Your task to perform on an android device: toggle pop-ups in chrome Image 0: 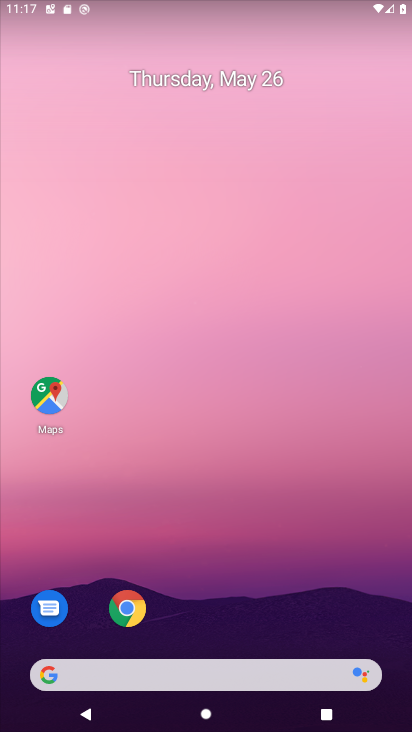
Step 0: click (119, 612)
Your task to perform on an android device: toggle pop-ups in chrome Image 1: 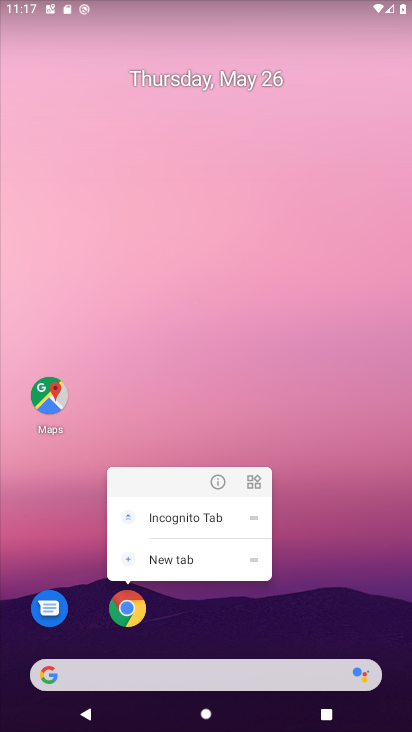
Step 1: click (120, 607)
Your task to perform on an android device: toggle pop-ups in chrome Image 2: 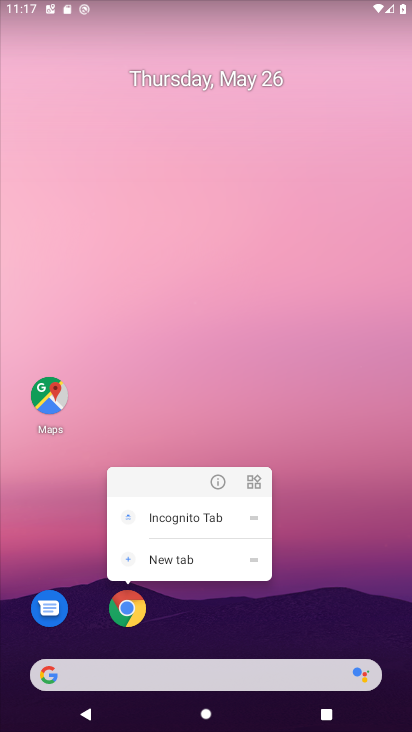
Step 2: click (120, 605)
Your task to perform on an android device: toggle pop-ups in chrome Image 3: 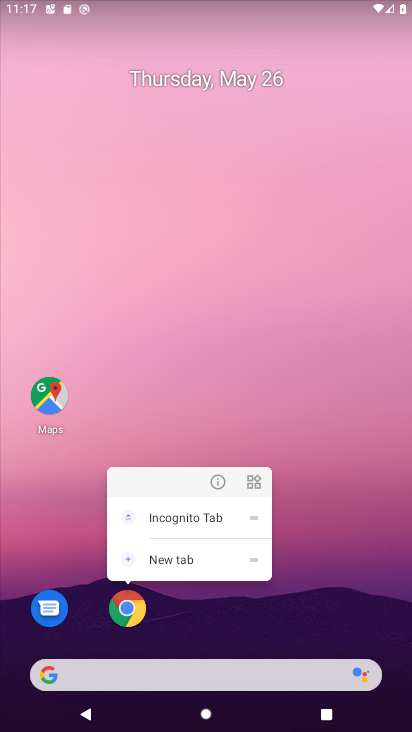
Step 3: click (134, 605)
Your task to perform on an android device: toggle pop-ups in chrome Image 4: 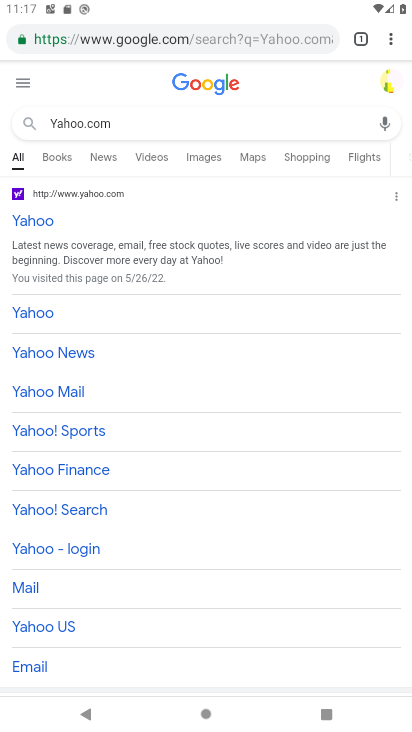
Step 4: click (393, 39)
Your task to perform on an android device: toggle pop-ups in chrome Image 5: 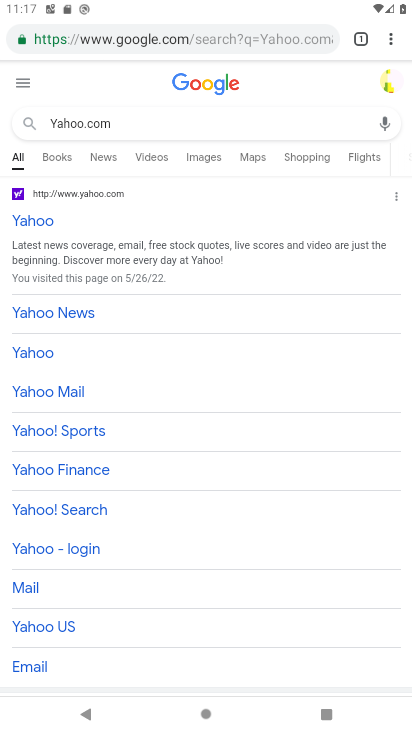
Step 5: click (389, 39)
Your task to perform on an android device: toggle pop-ups in chrome Image 6: 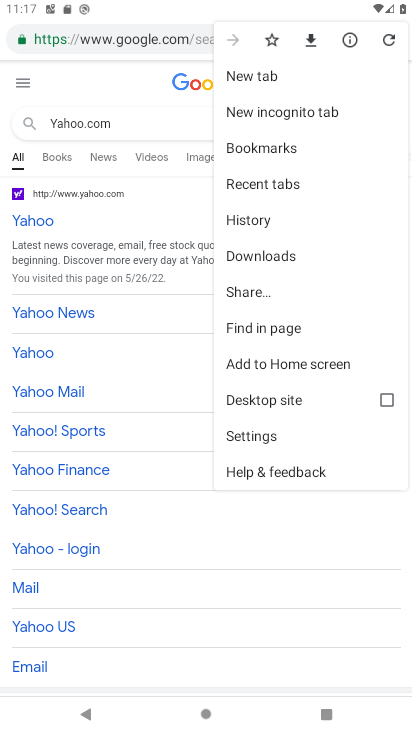
Step 6: click (254, 430)
Your task to perform on an android device: toggle pop-ups in chrome Image 7: 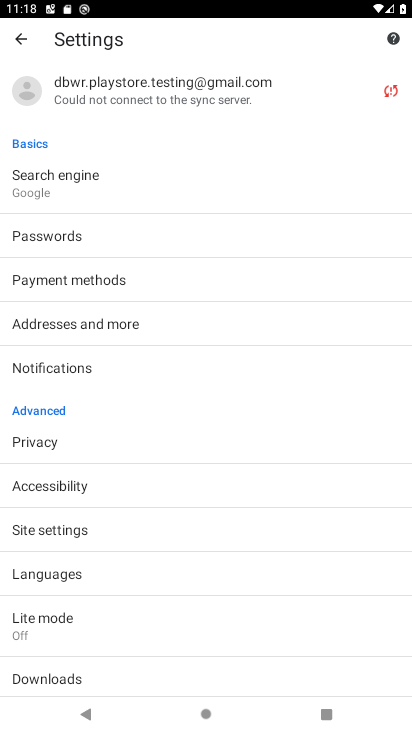
Step 7: click (47, 526)
Your task to perform on an android device: toggle pop-ups in chrome Image 8: 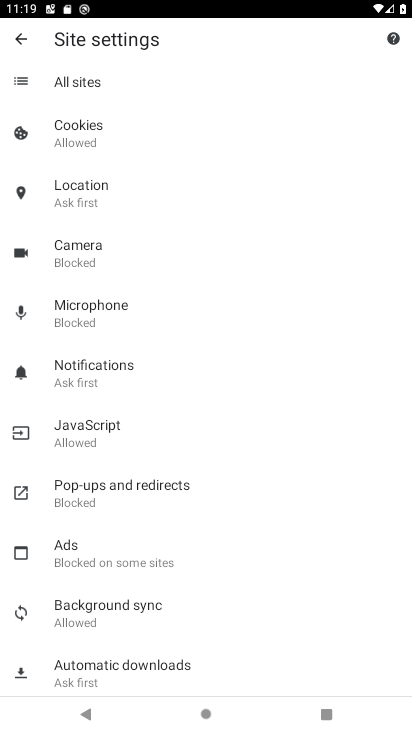
Step 8: drag from (250, 651) to (235, 251)
Your task to perform on an android device: toggle pop-ups in chrome Image 9: 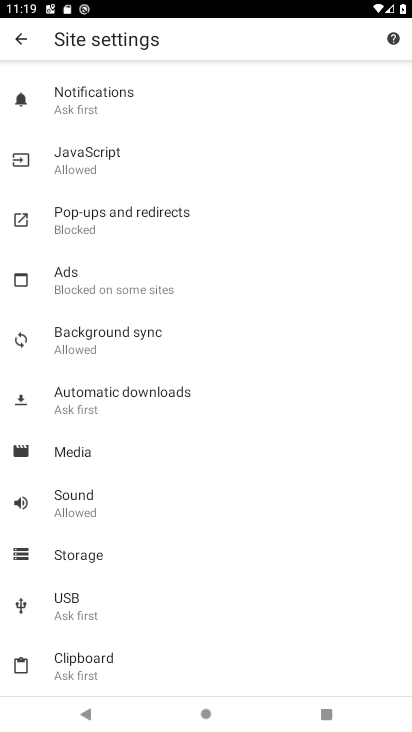
Step 9: click (89, 214)
Your task to perform on an android device: toggle pop-ups in chrome Image 10: 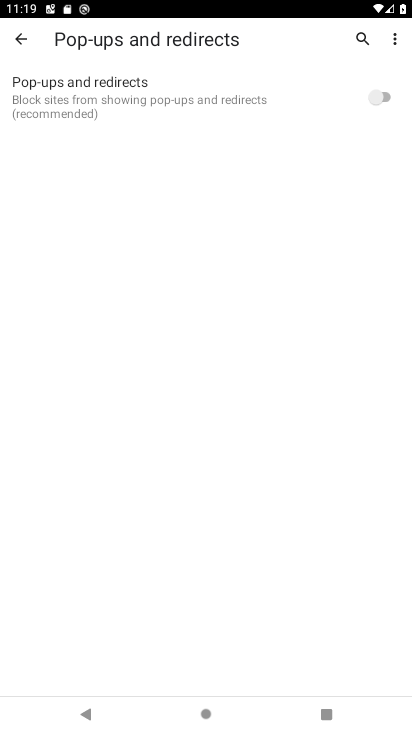
Step 10: click (382, 95)
Your task to perform on an android device: toggle pop-ups in chrome Image 11: 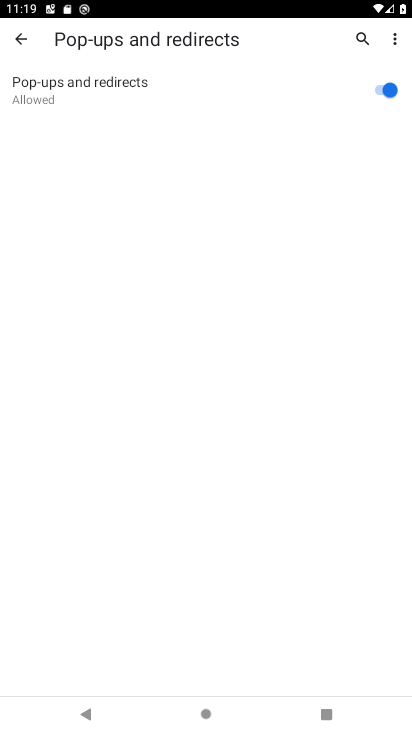
Step 11: task complete